Your task to perform on an android device: toggle location history Image 0: 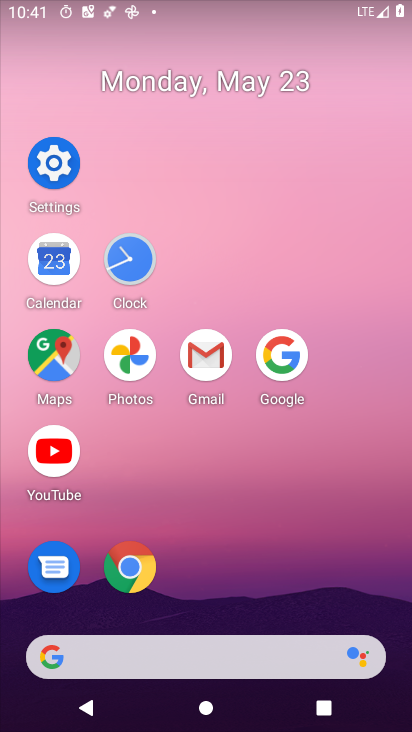
Step 0: click (33, 152)
Your task to perform on an android device: toggle location history Image 1: 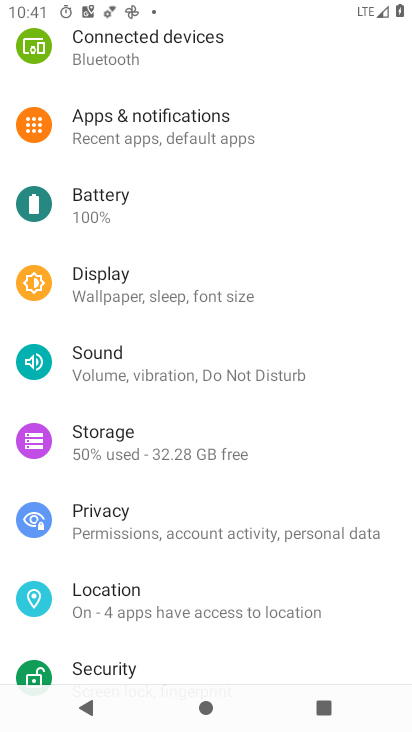
Step 1: click (231, 601)
Your task to perform on an android device: toggle location history Image 2: 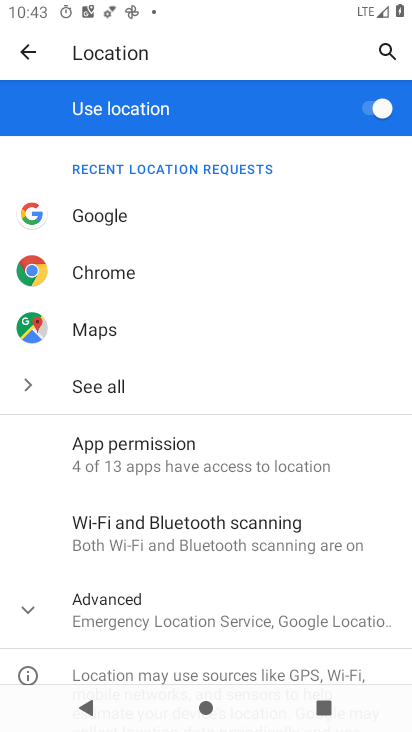
Step 2: drag from (203, 605) to (247, 231)
Your task to perform on an android device: toggle location history Image 3: 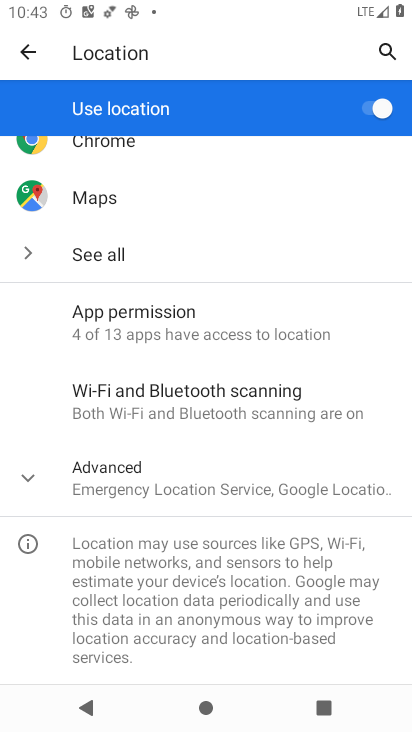
Step 3: click (159, 524)
Your task to perform on an android device: toggle location history Image 4: 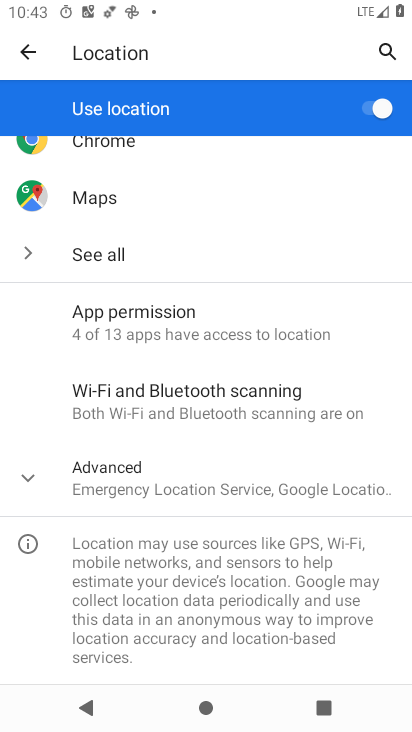
Step 4: click (137, 459)
Your task to perform on an android device: toggle location history Image 5: 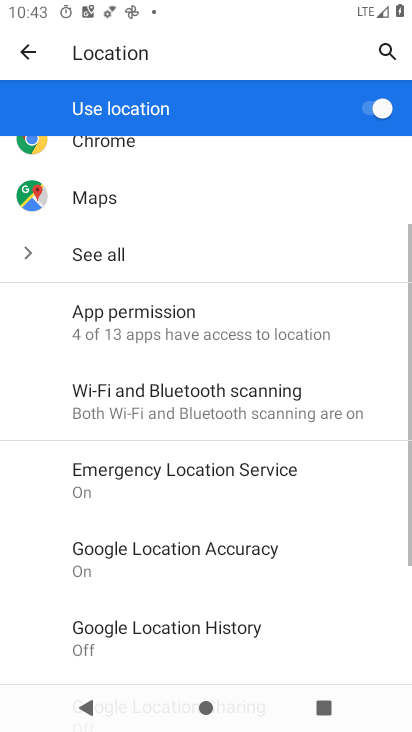
Step 5: drag from (220, 599) to (215, 266)
Your task to perform on an android device: toggle location history Image 6: 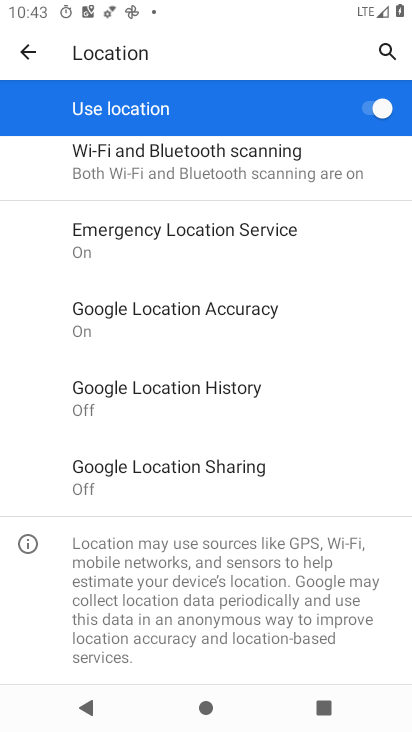
Step 6: click (199, 393)
Your task to perform on an android device: toggle location history Image 7: 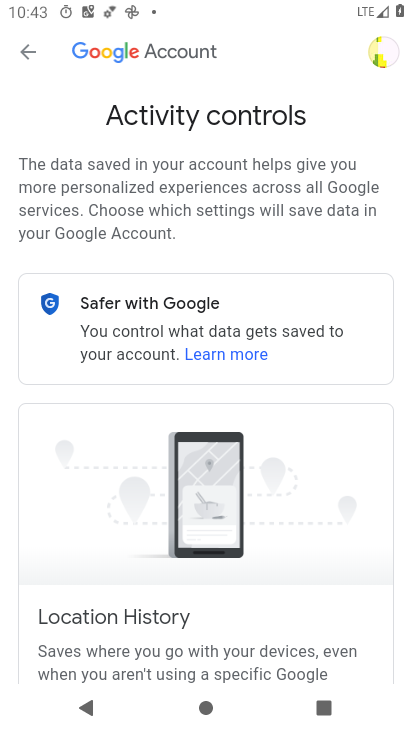
Step 7: drag from (295, 550) to (286, 191)
Your task to perform on an android device: toggle location history Image 8: 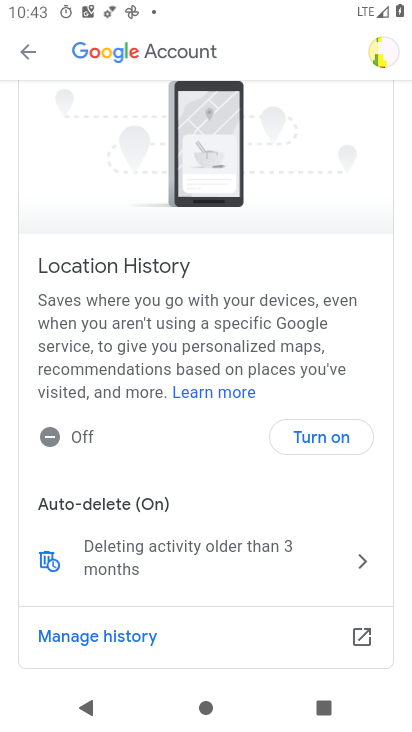
Step 8: click (309, 434)
Your task to perform on an android device: toggle location history Image 9: 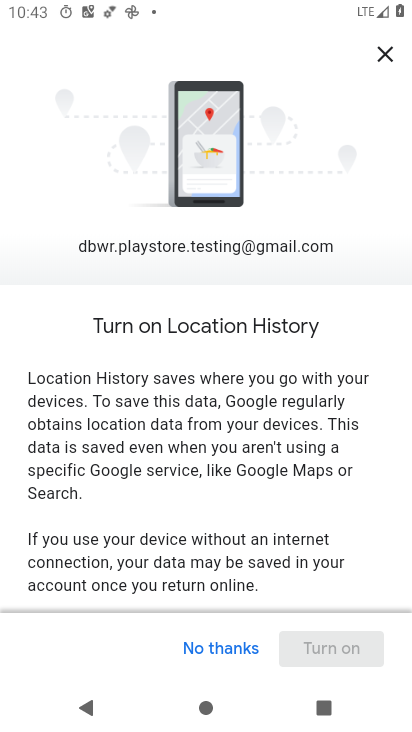
Step 9: drag from (335, 565) to (301, 134)
Your task to perform on an android device: toggle location history Image 10: 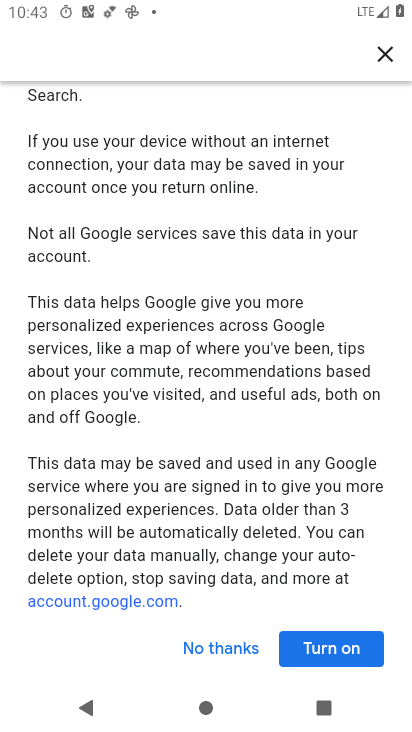
Step 10: drag from (313, 557) to (316, 165)
Your task to perform on an android device: toggle location history Image 11: 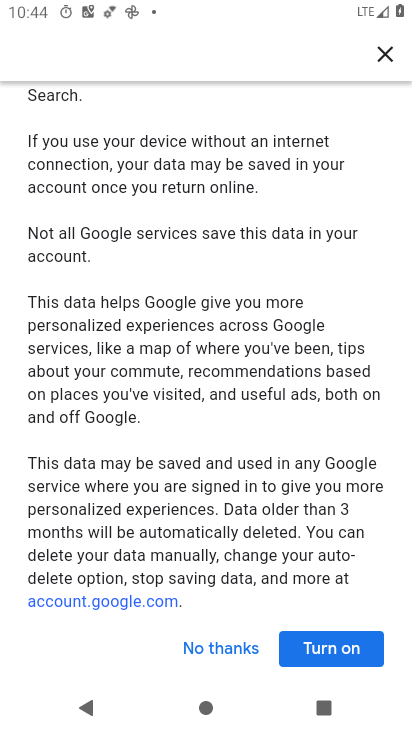
Step 11: click (354, 661)
Your task to perform on an android device: toggle location history Image 12: 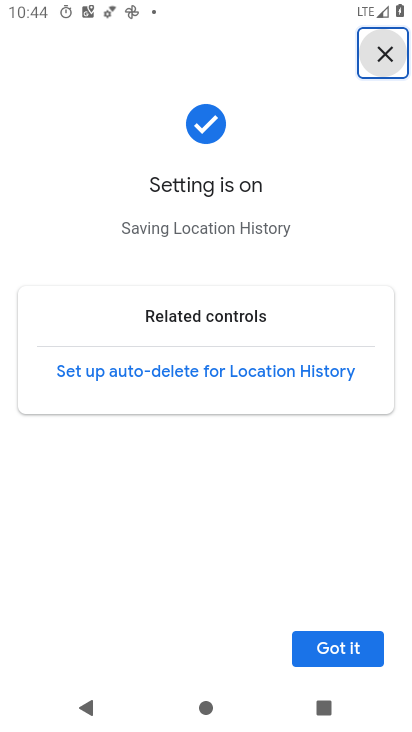
Step 12: click (363, 655)
Your task to perform on an android device: toggle location history Image 13: 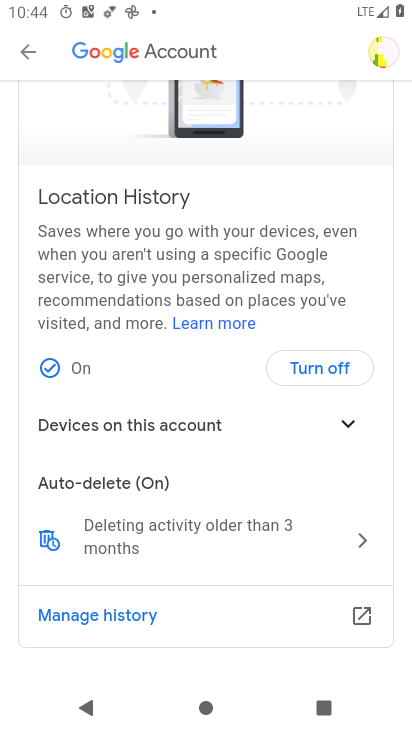
Step 13: task complete